Your task to perform on an android device: Open Google Chrome and open the bookmarks view Image 0: 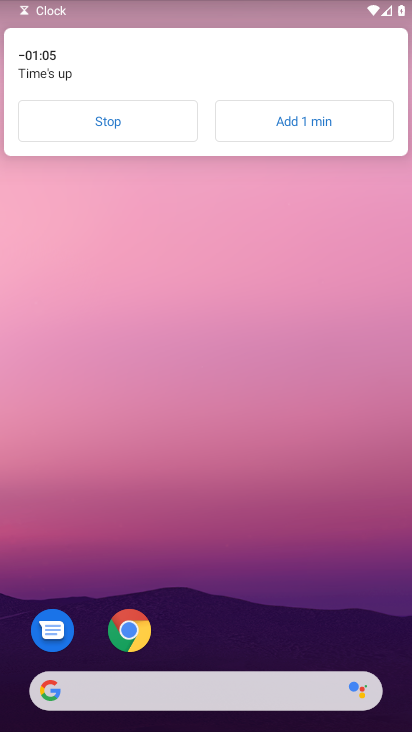
Step 0: click (116, 125)
Your task to perform on an android device: Open Google Chrome and open the bookmarks view Image 1: 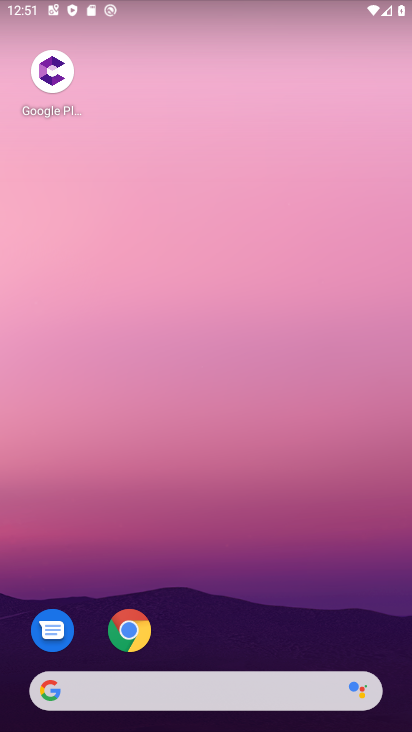
Step 1: drag from (187, 666) to (166, 240)
Your task to perform on an android device: Open Google Chrome and open the bookmarks view Image 2: 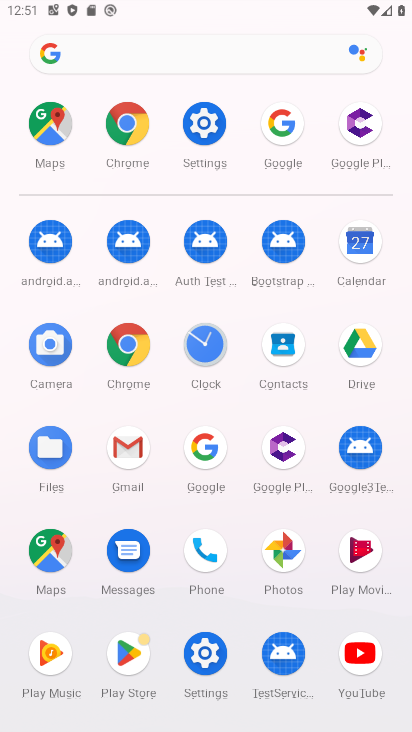
Step 2: click (122, 126)
Your task to perform on an android device: Open Google Chrome and open the bookmarks view Image 3: 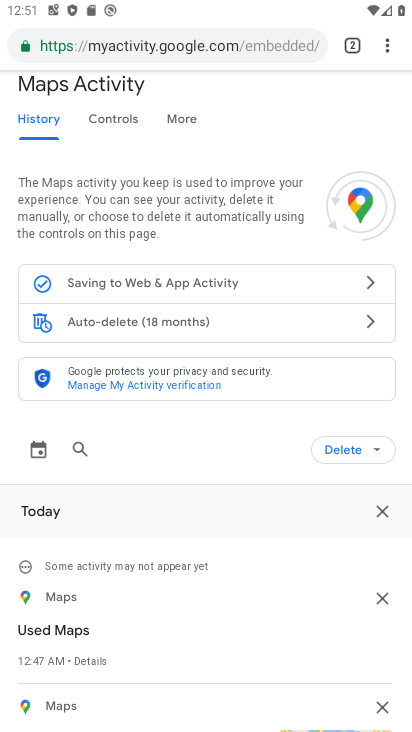
Step 3: click (383, 46)
Your task to perform on an android device: Open Google Chrome and open the bookmarks view Image 4: 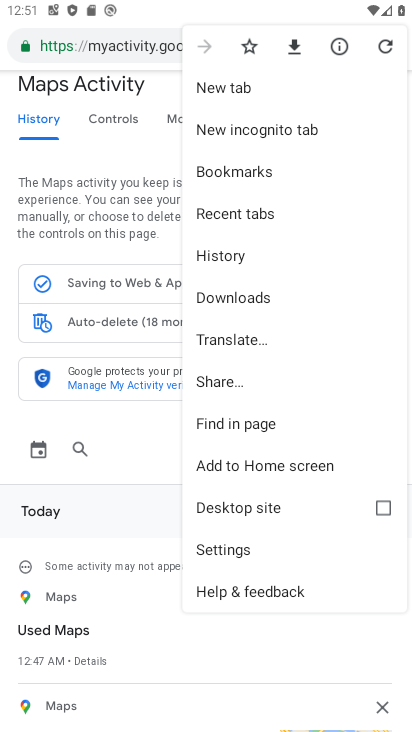
Step 4: click (233, 177)
Your task to perform on an android device: Open Google Chrome and open the bookmarks view Image 5: 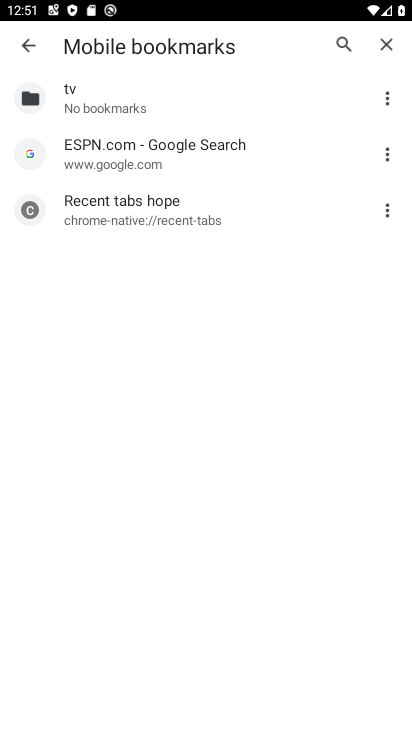
Step 5: task complete